Your task to perform on an android device: Open Chrome and go to settings Image 0: 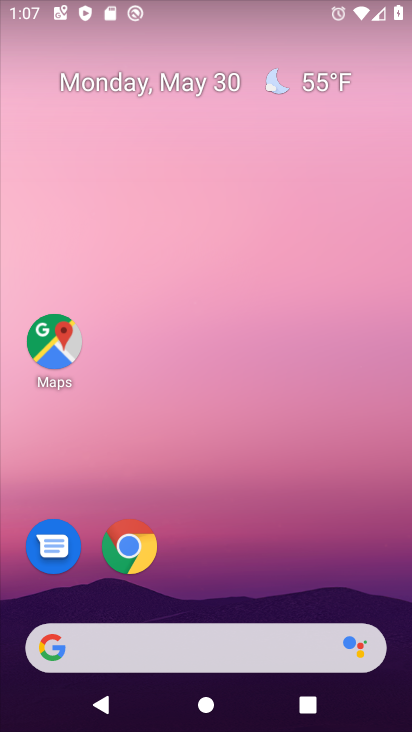
Step 0: press home button
Your task to perform on an android device: Open Chrome and go to settings Image 1: 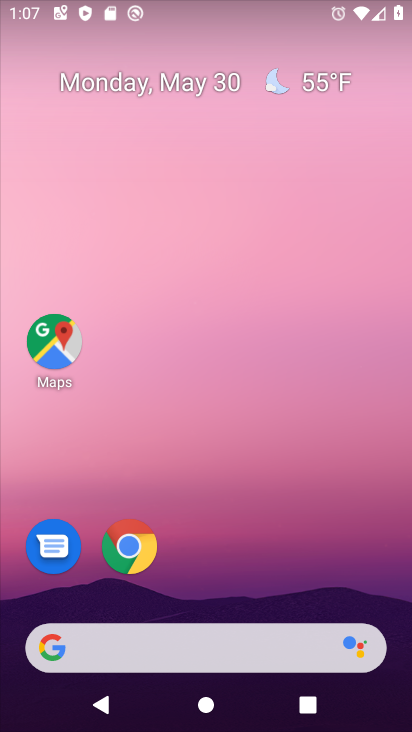
Step 1: press home button
Your task to perform on an android device: Open Chrome and go to settings Image 2: 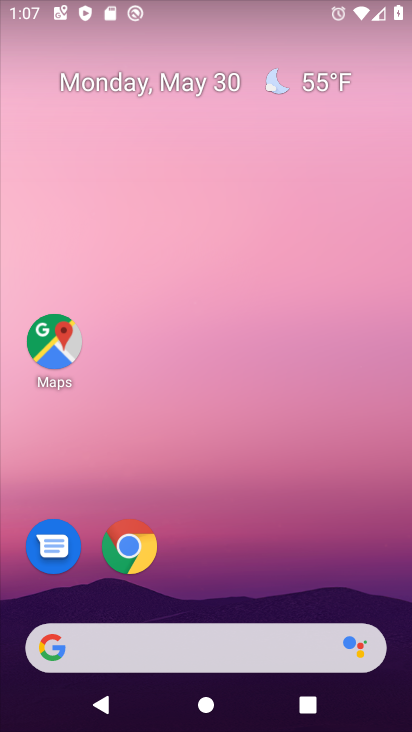
Step 2: click (126, 546)
Your task to perform on an android device: Open Chrome and go to settings Image 3: 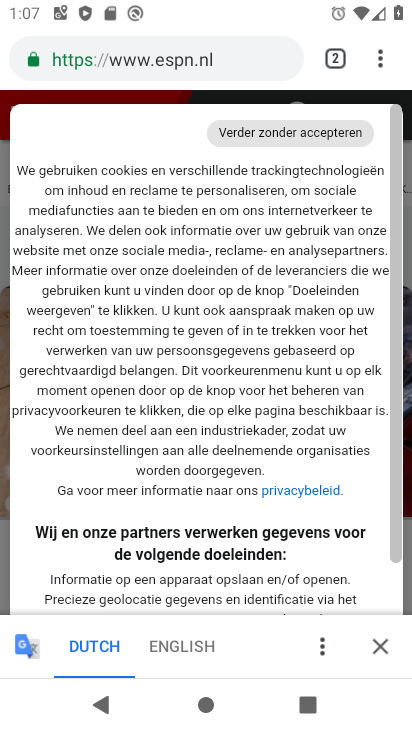
Step 3: task complete